Your task to perform on an android device: Check the news Image 0: 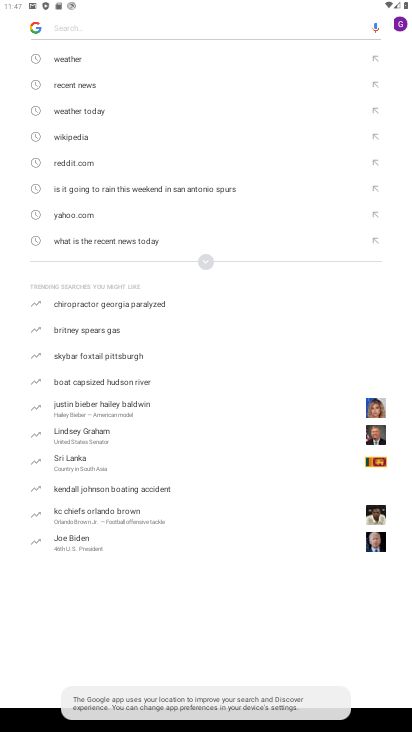
Step 0: press home button
Your task to perform on an android device: Check the news Image 1: 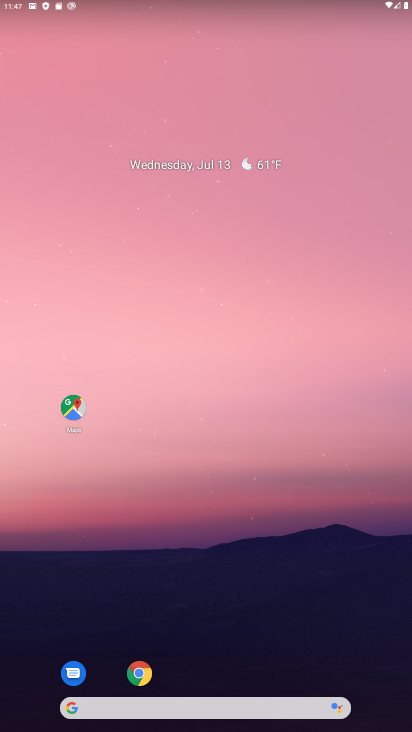
Step 1: task complete